Your task to perform on an android device: see sites visited before in the chrome app Image 0: 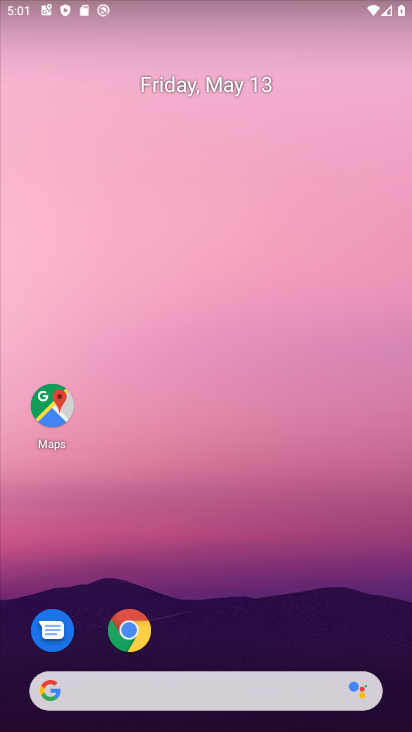
Step 0: drag from (237, 9) to (266, 468)
Your task to perform on an android device: see sites visited before in the chrome app Image 1: 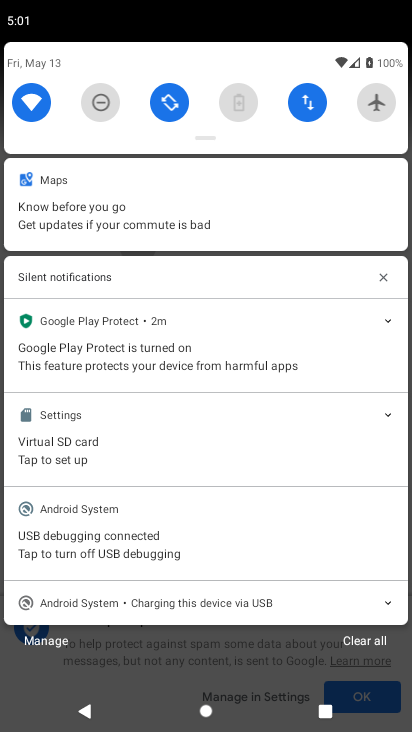
Step 1: click (96, 90)
Your task to perform on an android device: see sites visited before in the chrome app Image 2: 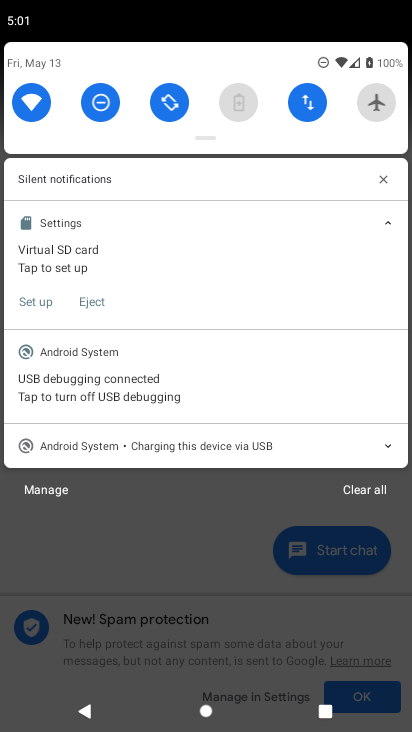
Step 2: click (93, 95)
Your task to perform on an android device: see sites visited before in the chrome app Image 3: 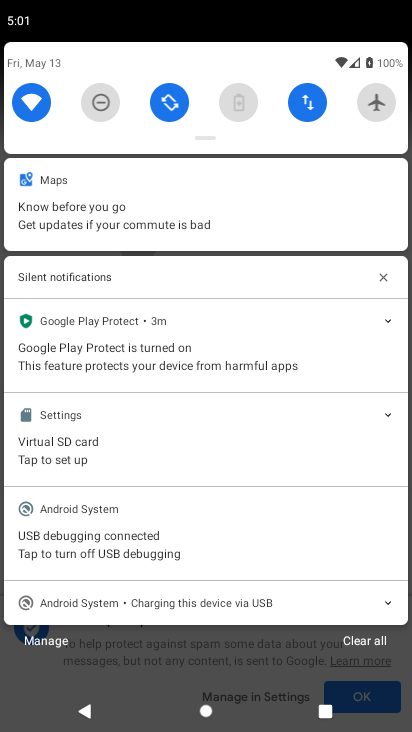
Step 3: drag from (236, 667) to (171, 95)
Your task to perform on an android device: see sites visited before in the chrome app Image 4: 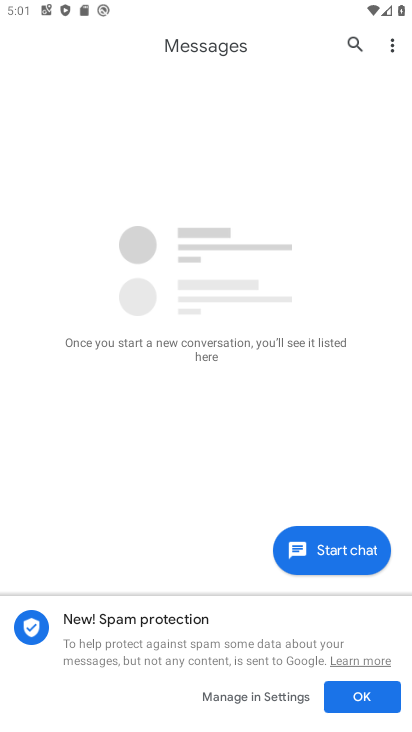
Step 4: press home button
Your task to perform on an android device: see sites visited before in the chrome app Image 5: 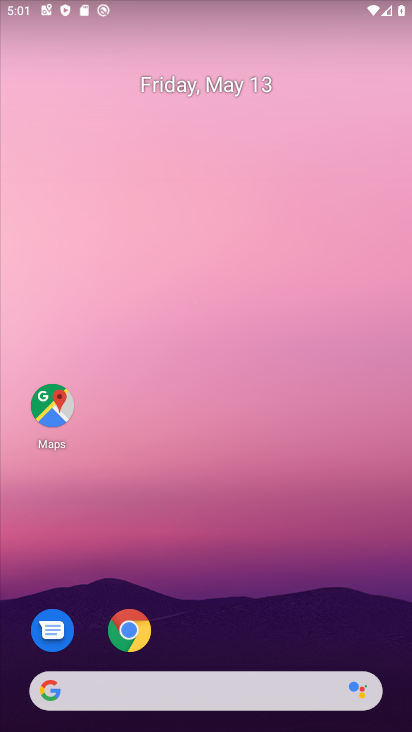
Step 5: click (123, 621)
Your task to perform on an android device: see sites visited before in the chrome app Image 6: 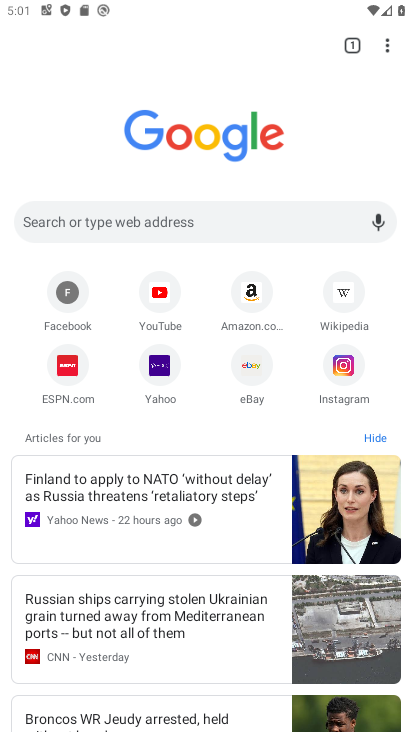
Step 6: task complete